Your task to perform on an android device: turn on the 24-hour format for clock Image 0: 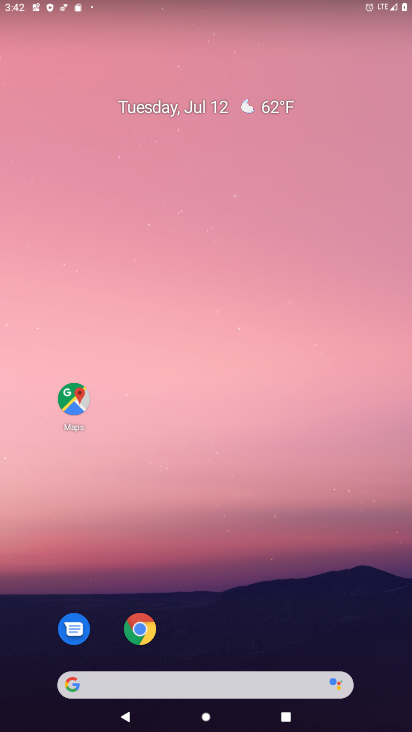
Step 0: press home button
Your task to perform on an android device: turn on the 24-hour format for clock Image 1: 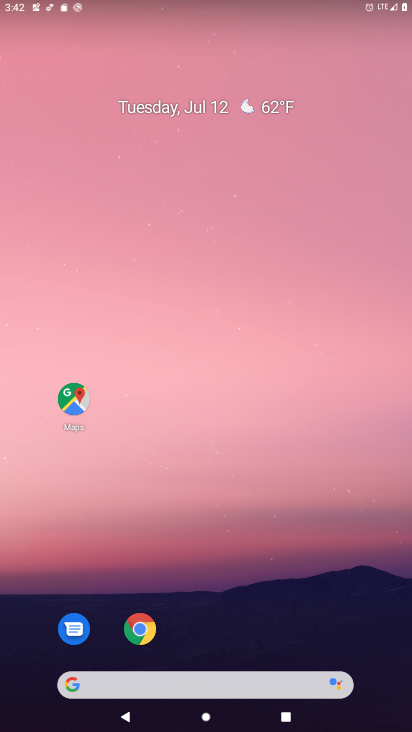
Step 1: drag from (180, 662) to (146, 38)
Your task to perform on an android device: turn on the 24-hour format for clock Image 2: 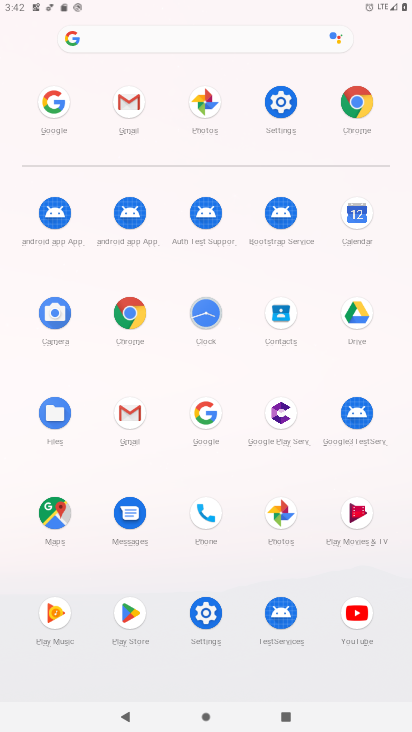
Step 2: click (196, 324)
Your task to perform on an android device: turn on the 24-hour format for clock Image 3: 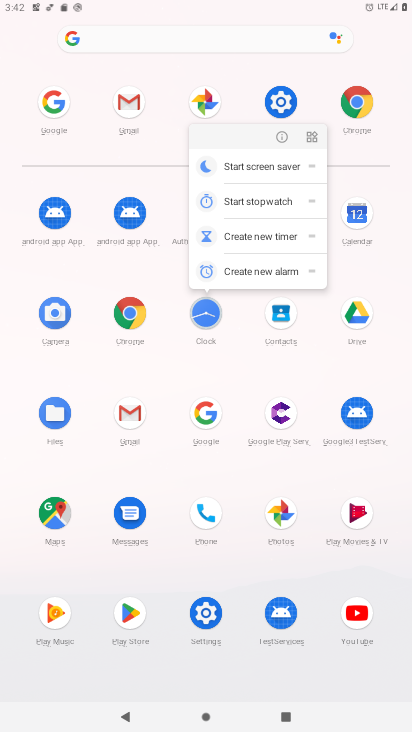
Step 3: click (209, 316)
Your task to perform on an android device: turn on the 24-hour format for clock Image 4: 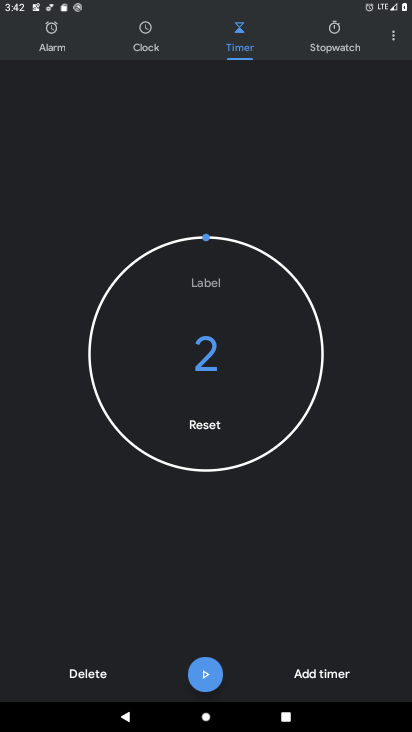
Step 4: click (397, 34)
Your task to perform on an android device: turn on the 24-hour format for clock Image 5: 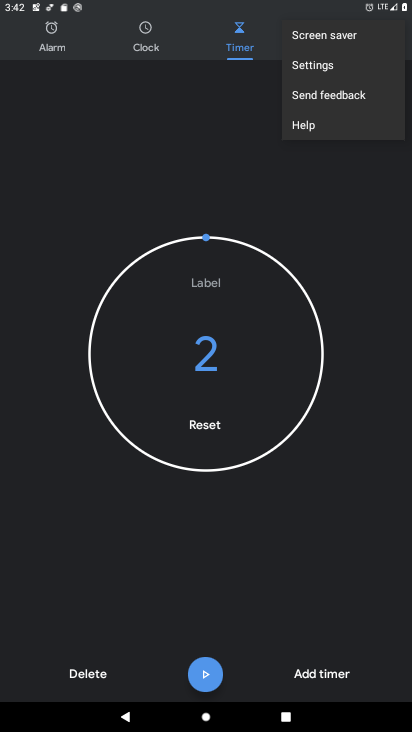
Step 5: click (327, 68)
Your task to perform on an android device: turn on the 24-hour format for clock Image 6: 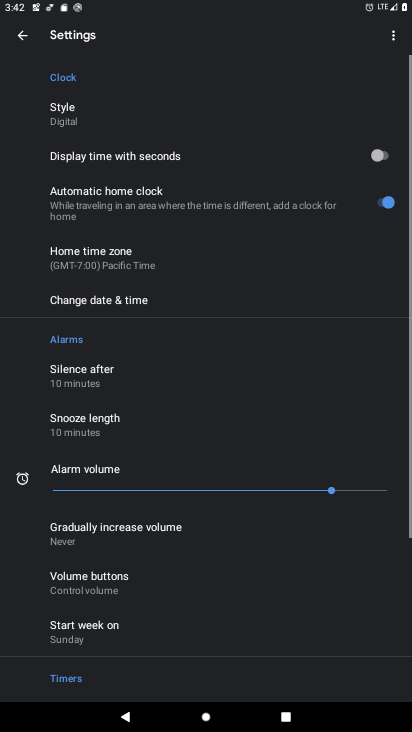
Step 6: click (114, 298)
Your task to perform on an android device: turn on the 24-hour format for clock Image 7: 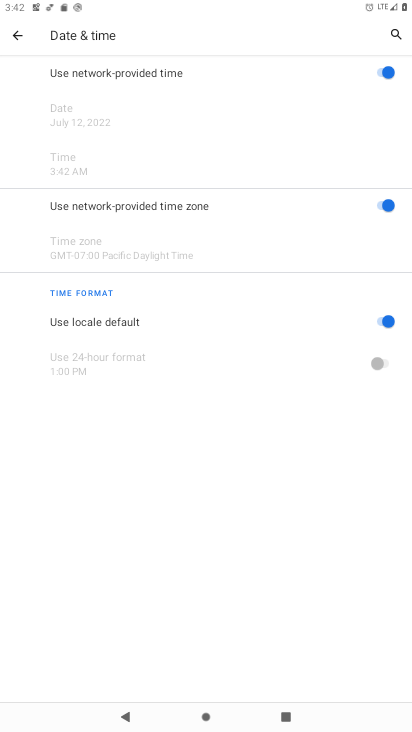
Step 7: click (379, 322)
Your task to perform on an android device: turn on the 24-hour format for clock Image 8: 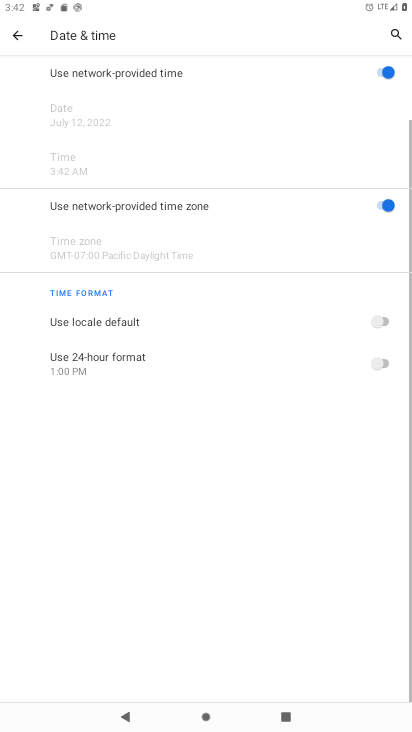
Step 8: click (376, 367)
Your task to perform on an android device: turn on the 24-hour format for clock Image 9: 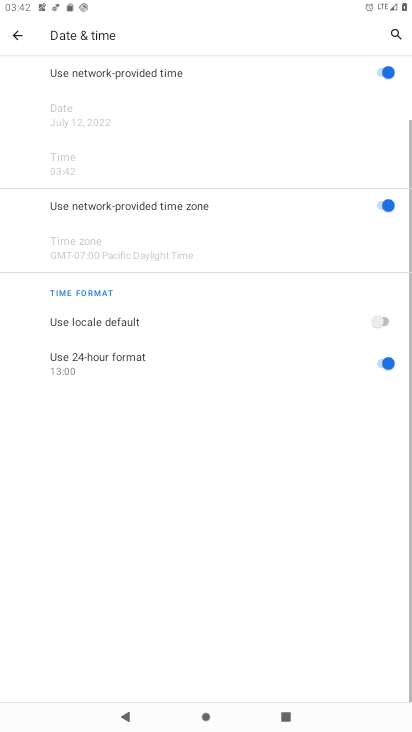
Step 9: task complete